Your task to perform on an android device: turn on airplane mode Image 0: 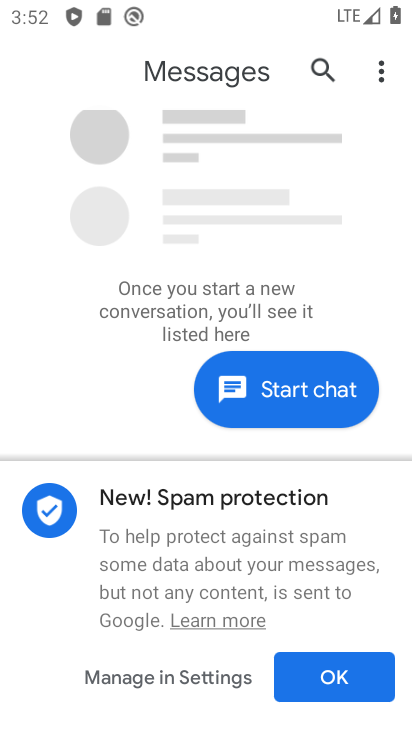
Step 0: press home button
Your task to perform on an android device: turn on airplane mode Image 1: 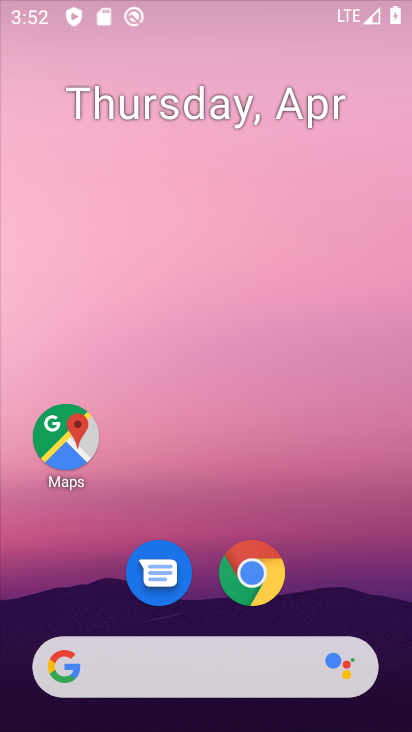
Step 1: drag from (356, 607) to (277, 52)
Your task to perform on an android device: turn on airplane mode Image 2: 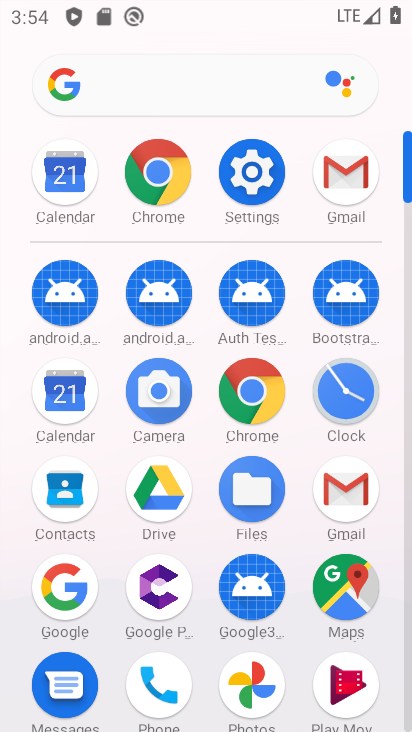
Step 2: drag from (266, 30) to (299, 418)
Your task to perform on an android device: turn on airplane mode Image 3: 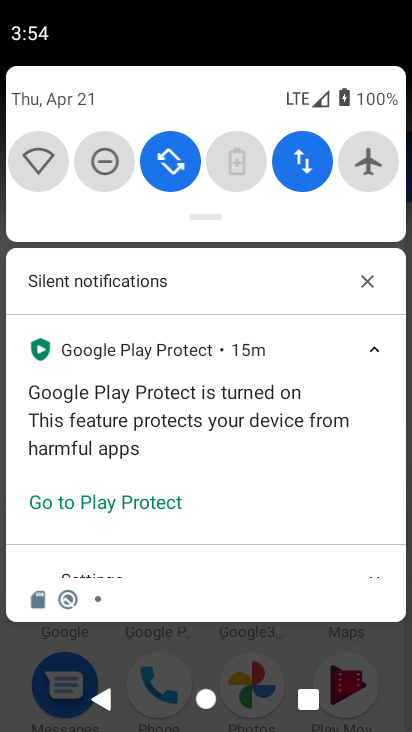
Step 3: click (355, 163)
Your task to perform on an android device: turn on airplane mode Image 4: 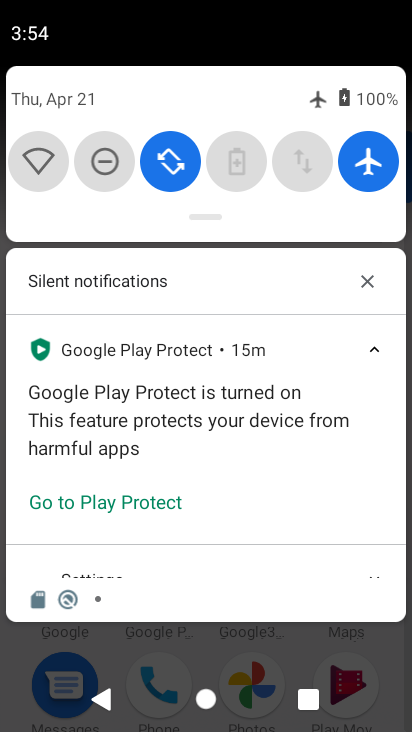
Step 4: task complete